Your task to perform on an android device: What's on my calendar today? Image 0: 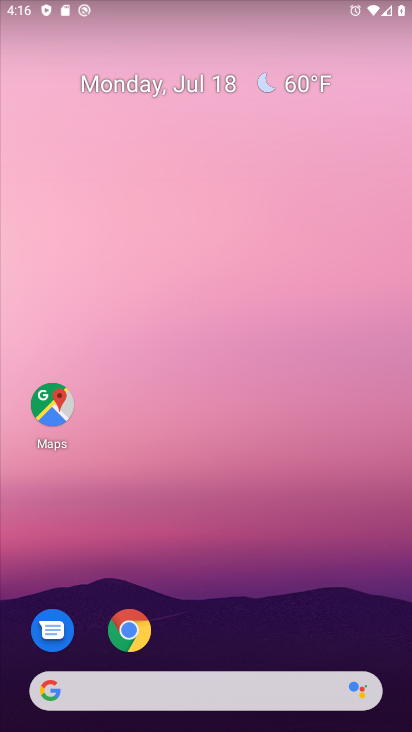
Step 0: drag from (230, 591) to (136, 82)
Your task to perform on an android device: What's on my calendar today? Image 1: 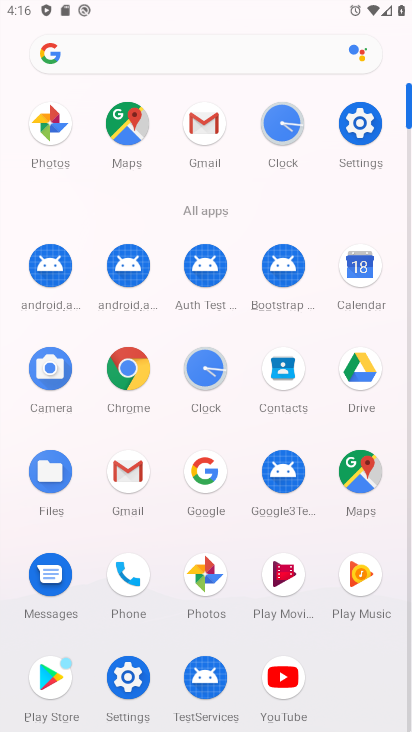
Step 1: click (363, 274)
Your task to perform on an android device: What's on my calendar today? Image 2: 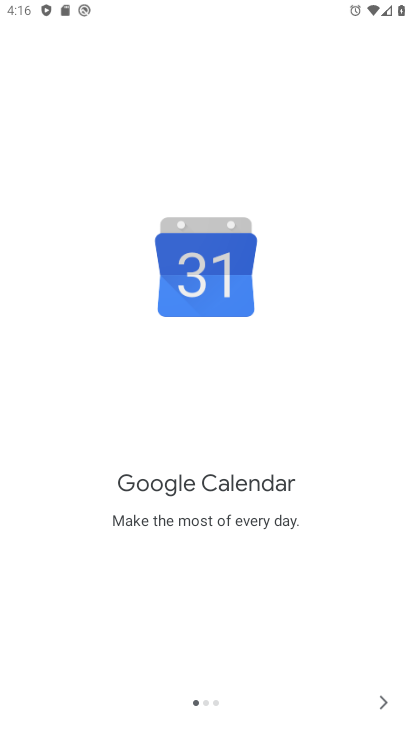
Step 2: click (380, 697)
Your task to perform on an android device: What's on my calendar today? Image 3: 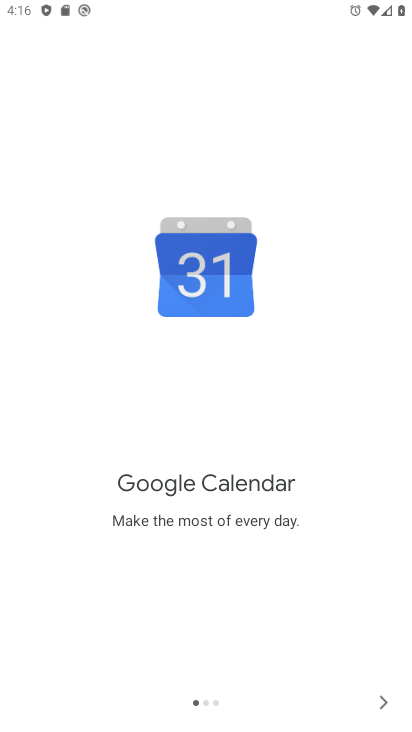
Step 3: click (380, 697)
Your task to perform on an android device: What's on my calendar today? Image 4: 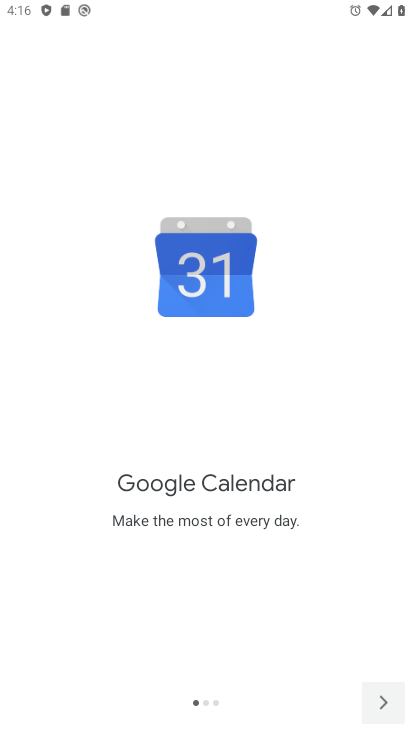
Step 4: click (380, 697)
Your task to perform on an android device: What's on my calendar today? Image 5: 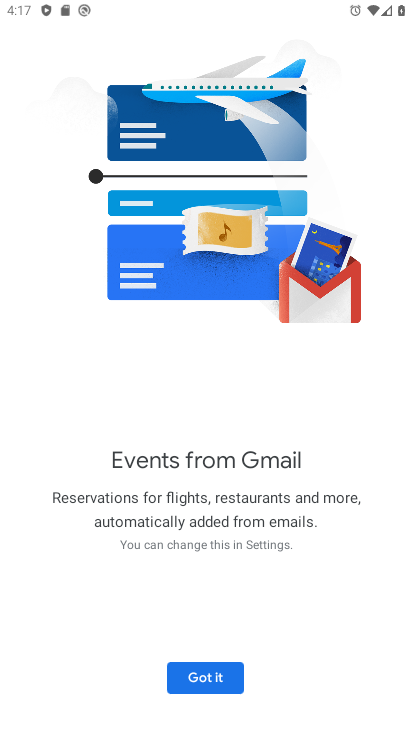
Step 5: click (212, 669)
Your task to perform on an android device: What's on my calendar today? Image 6: 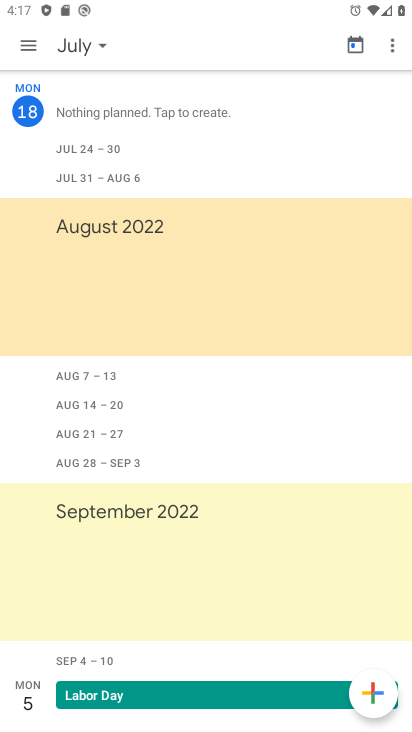
Step 6: click (31, 39)
Your task to perform on an android device: What's on my calendar today? Image 7: 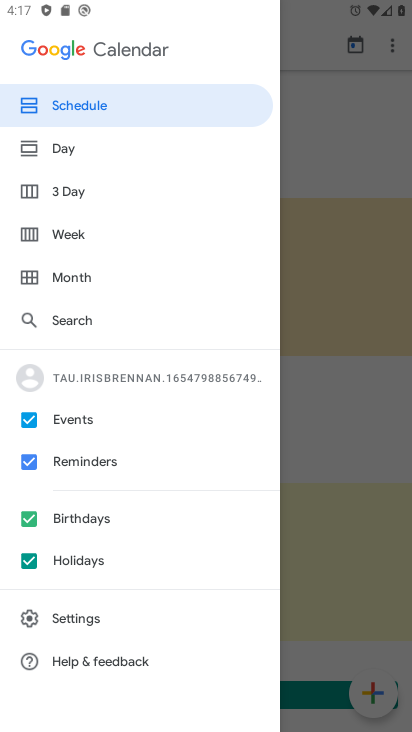
Step 7: click (62, 147)
Your task to perform on an android device: What's on my calendar today? Image 8: 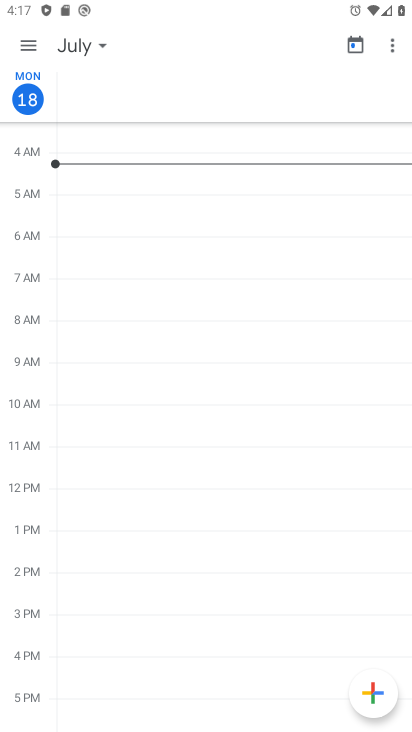
Step 8: task complete